Your task to perform on an android device: Show me recent news Image 0: 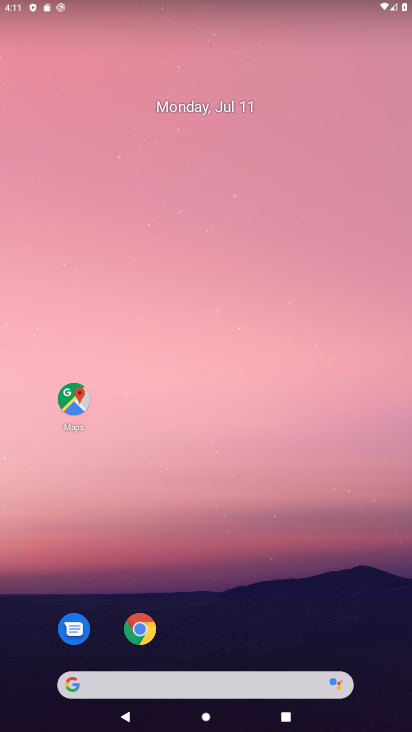
Step 0: drag from (166, 649) to (307, 126)
Your task to perform on an android device: Show me recent news Image 1: 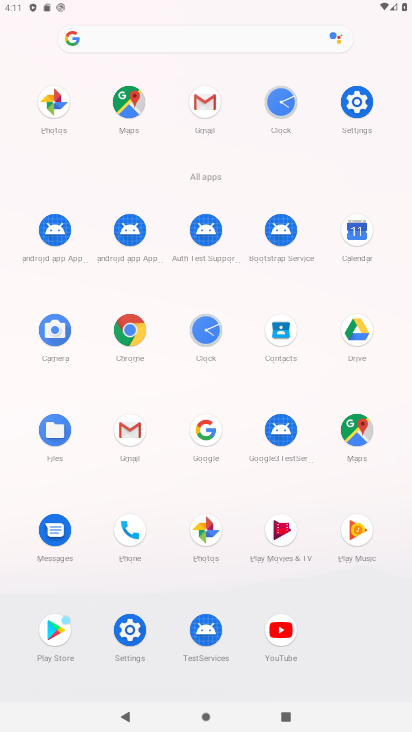
Step 1: click (124, 347)
Your task to perform on an android device: Show me recent news Image 2: 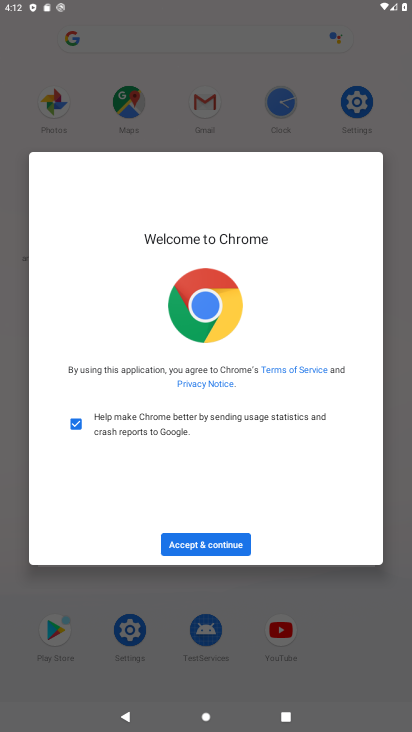
Step 2: click (218, 545)
Your task to perform on an android device: Show me recent news Image 3: 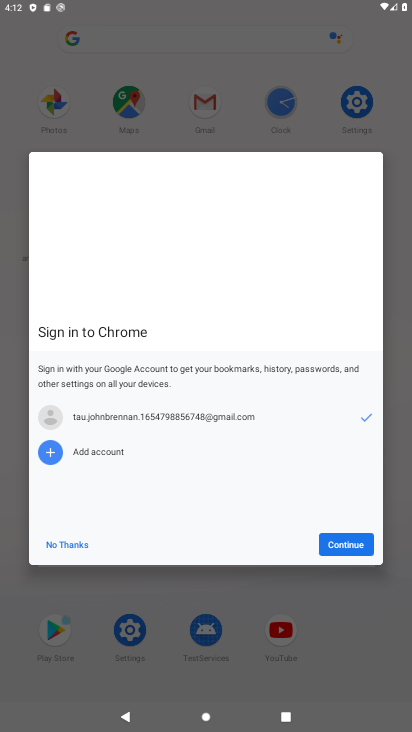
Step 3: click (363, 552)
Your task to perform on an android device: Show me recent news Image 4: 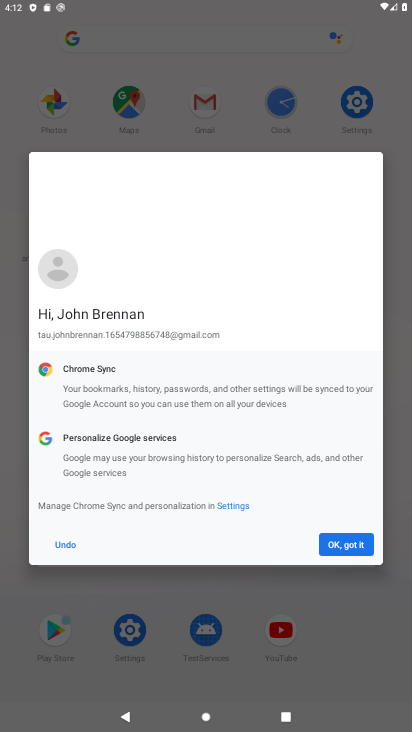
Step 4: click (362, 552)
Your task to perform on an android device: Show me recent news Image 5: 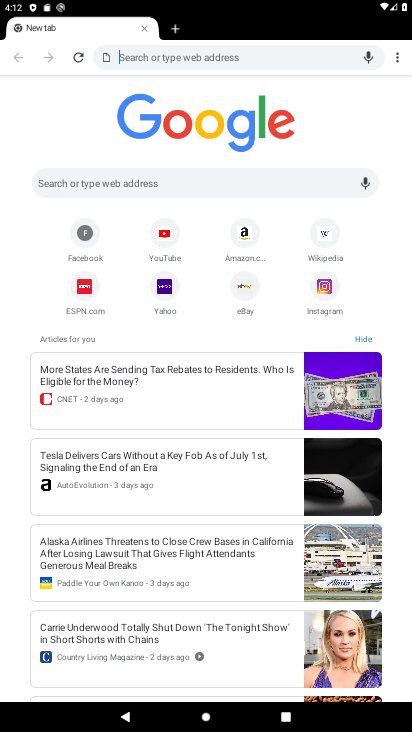
Step 5: task complete